Your task to perform on an android device: Open CNN.com Image 0: 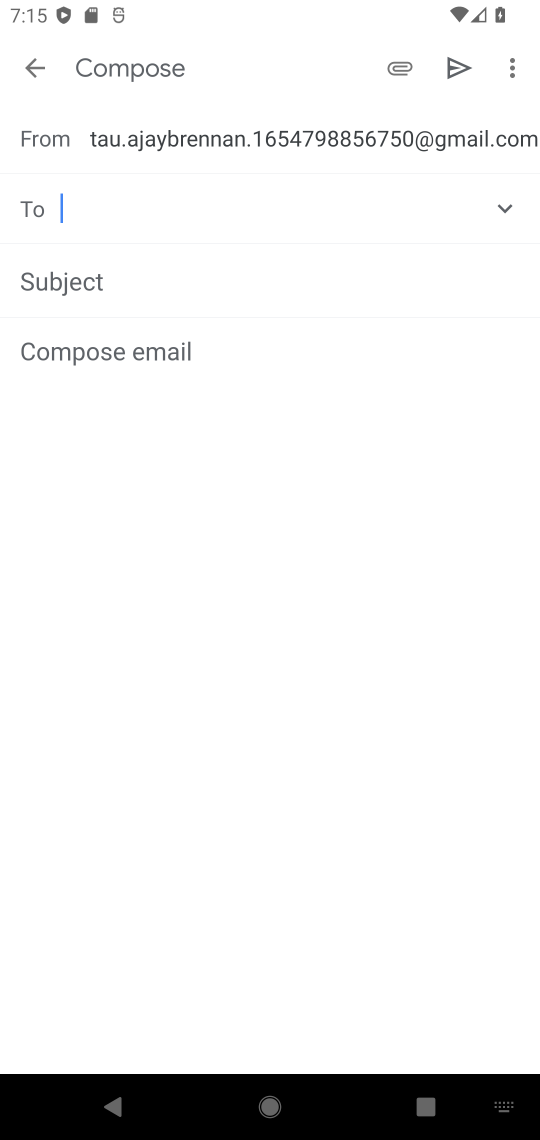
Step 0: press home button
Your task to perform on an android device: Open CNN.com Image 1: 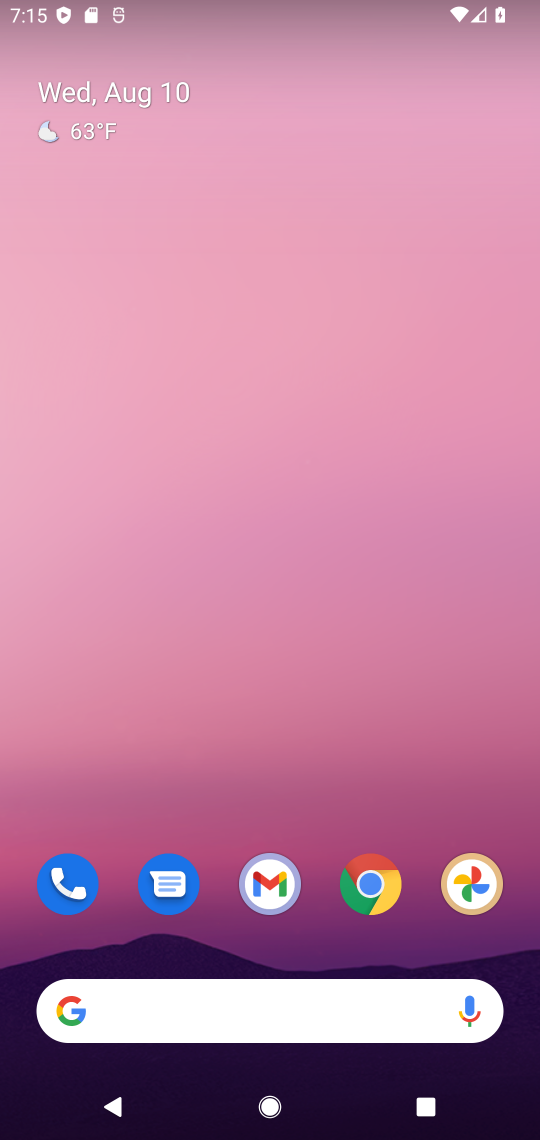
Step 1: click (374, 883)
Your task to perform on an android device: Open CNN.com Image 2: 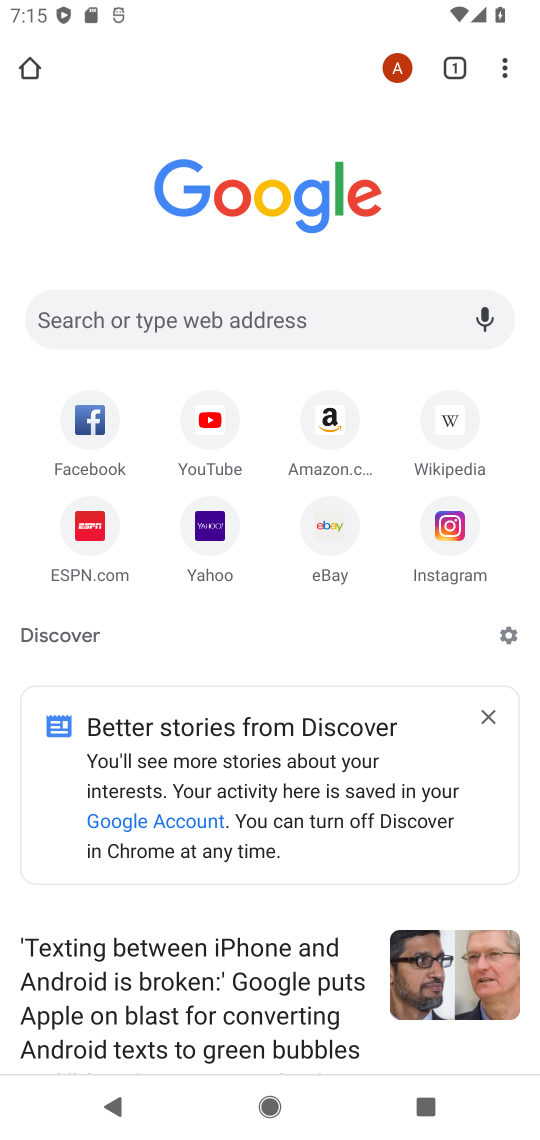
Step 2: click (257, 313)
Your task to perform on an android device: Open CNN.com Image 3: 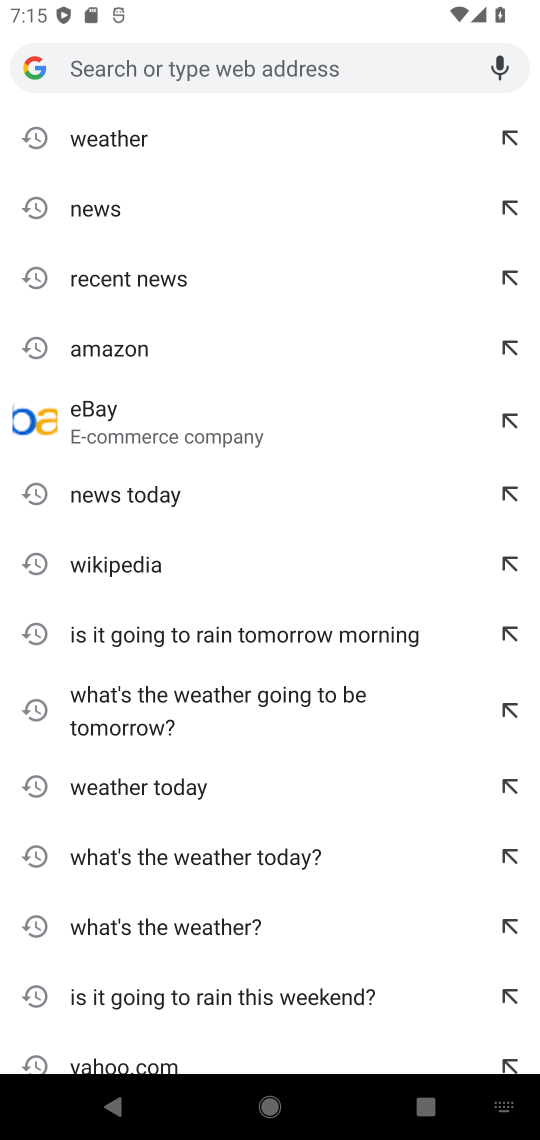
Step 3: type "cnn.com"
Your task to perform on an android device: Open CNN.com Image 4: 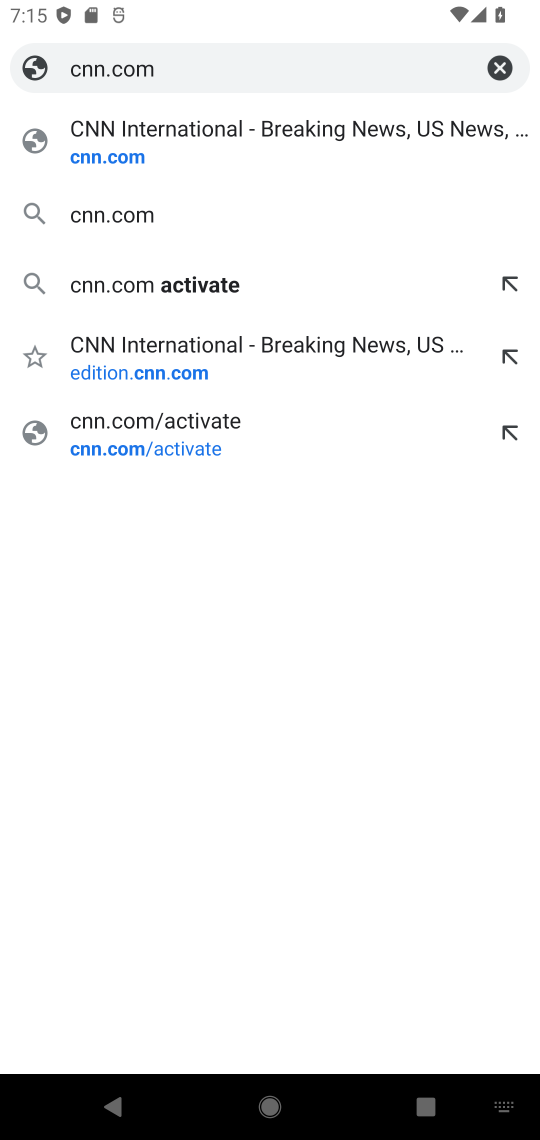
Step 4: click (124, 130)
Your task to perform on an android device: Open CNN.com Image 5: 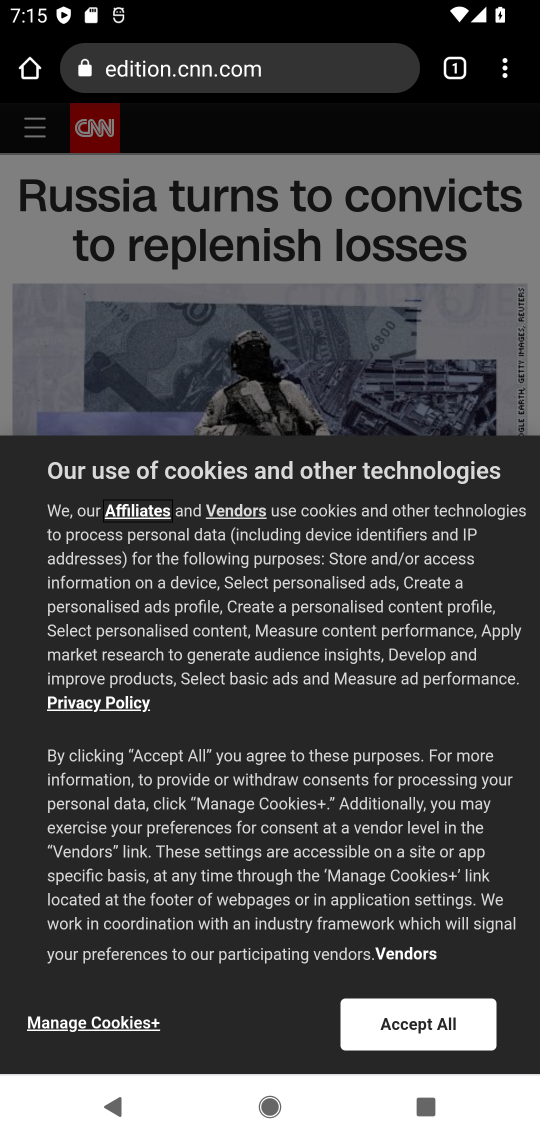
Step 5: task complete